Your task to perform on an android device: View the shopping cart on target. Search for "apple airpods" on target, select the first entry, add it to the cart, then select checkout. Image 0: 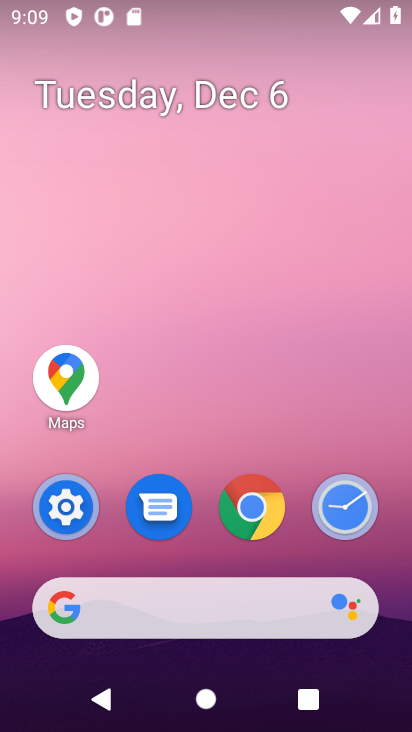
Step 0: click (133, 606)
Your task to perform on an android device: View the shopping cart on target. Search for "apple airpods" on target, select the first entry, add it to the cart, then select checkout. Image 1: 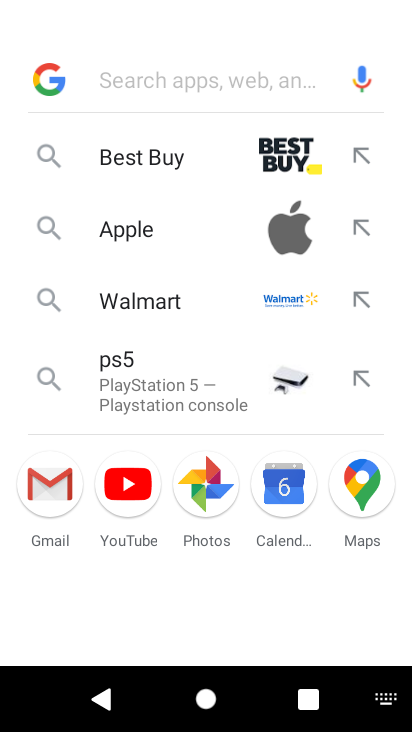
Step 1: type "target"
Your task to perform on an android device: View the shopping cart on target. Search for "apple airpods" on target, select the first entry, add it to the cart, then select checkout. Image 2: 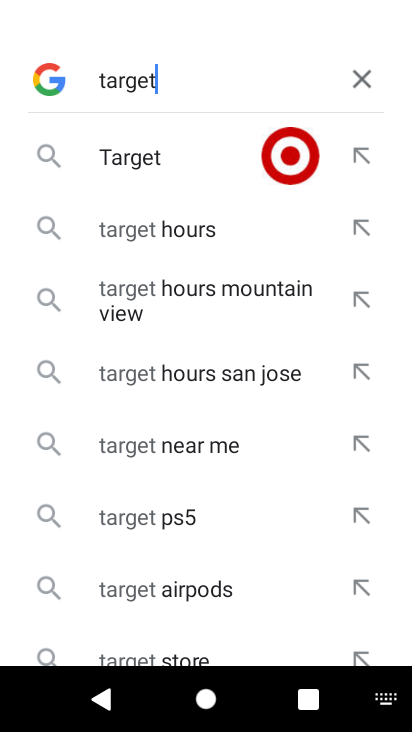
Step 2: press enter
Your task to perform on an android device: View the shopping cart on target. Search for "apple airpods" on target, select the first entry, add it to the cart, then select checkout. Image 3: 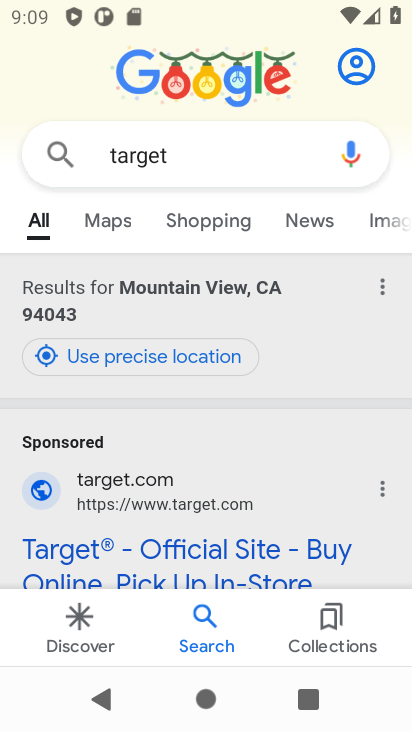
Step 3: drag from (352, 522) to (339, 288)
Your task to perform on an android device: View the shopping cart on target. Search for "apple airpods" on target, select the first entry, add it to the cart, then select checkout. Image 4: 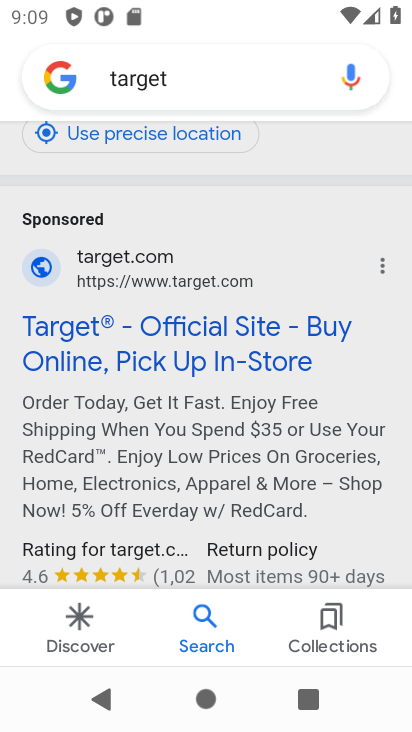
Step 4: click (182, 343)
Your task to perform on an android device: View the shopping cart on target. Search for "apple airpods" on target, select the first entry, add it to the cart, then select checkout. Image 5: 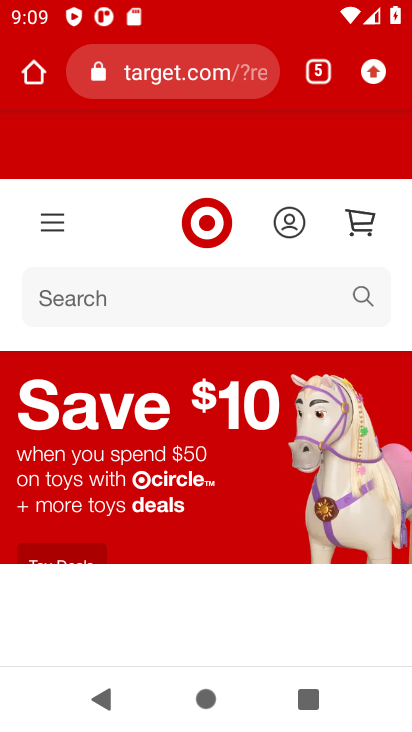
Step 5: click (361, 221)
Your task to perform on an android device: View the shopping cart on target. Search for "apple airpods" on target, select the first entry, add it to the cart, then select checkout. Image 6: 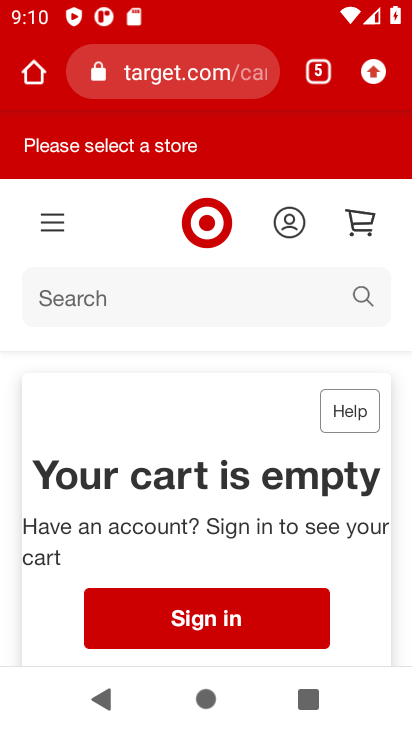
Step 6: click (184, 292)
Your task to perform on an android device: View the shopping cart on target. Search for "apple airpods" on target, select the first entry, add it to the cart, then select checkout. Image 7: 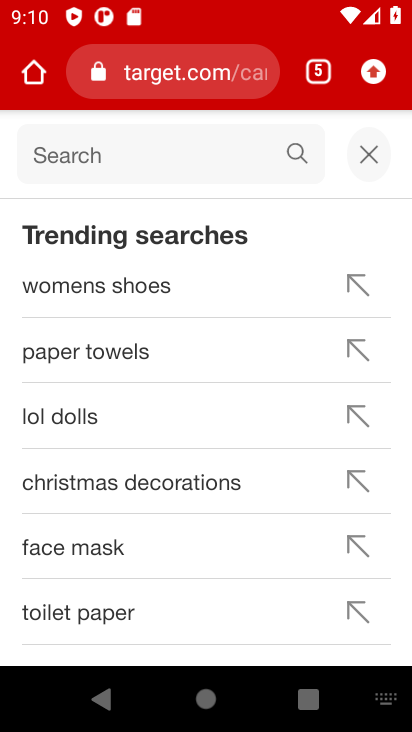
Step 7: type "apple airpods"
Your task to perform on an android device: View the shopping cart on target. Search for "apple airpods" on target, select the first entry, add it to the cart, then select checkout. Image 8: 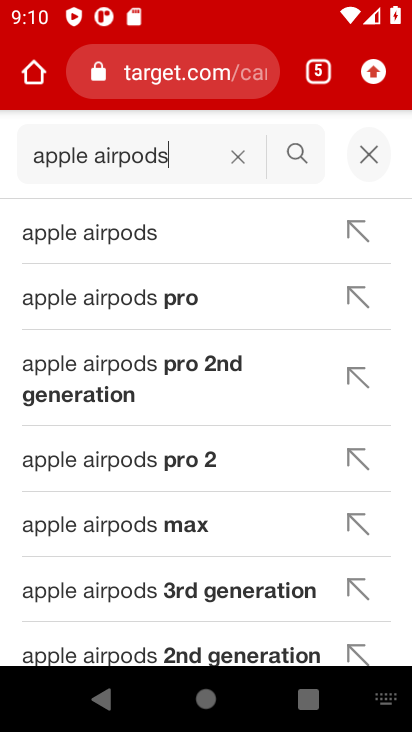
Step 8: press enter
Your task to perform on an android device: View the shopping cart on target. Search for "apple airpods" on target, select the first entry, add it to the cart, then select checkout. Image 9: 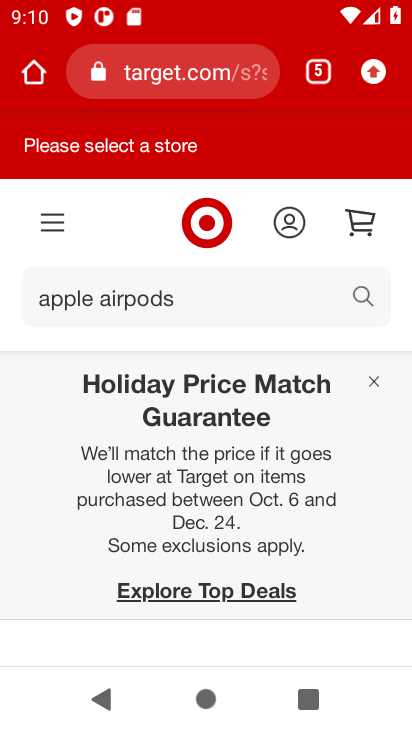
Step 9: drag from (336, 542) to (333, 353)
Your task to perform on an android device: View the shopping cart on target. Search for "apple airpods" on target, select the first entry, add it to the cart, then select checkout. Image 10: 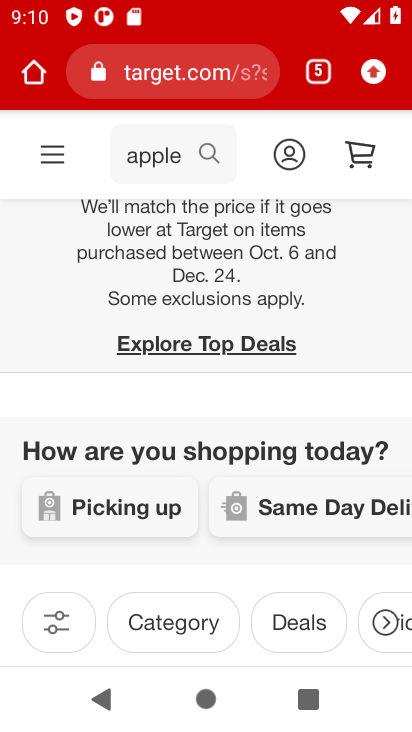
Step 10: drag from (289, 562) to (295, 241)
Your task to perform on an android device: View the shopping cart on target. Search for "apple airpods" on target, select the first entry, add it to the cart, then select checkout. Image 11: 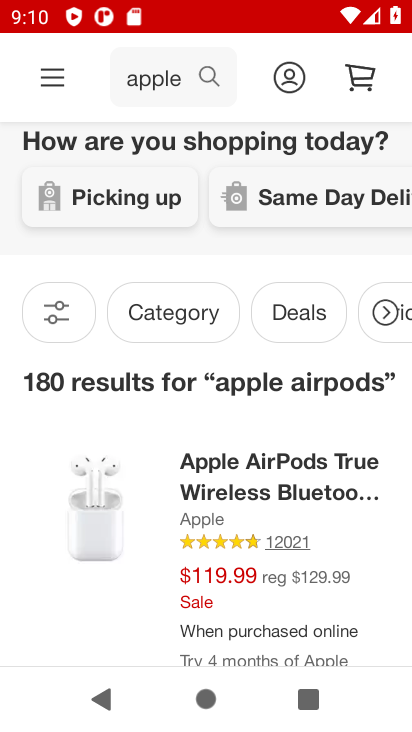
Step 11: drag from (277, 598) to (300, 320)
Your task to perform on an android device: View the shopping cart on target. Search for "apple airpods" on target, select the first entry, add it to the cart, then select checkout. Image 12: 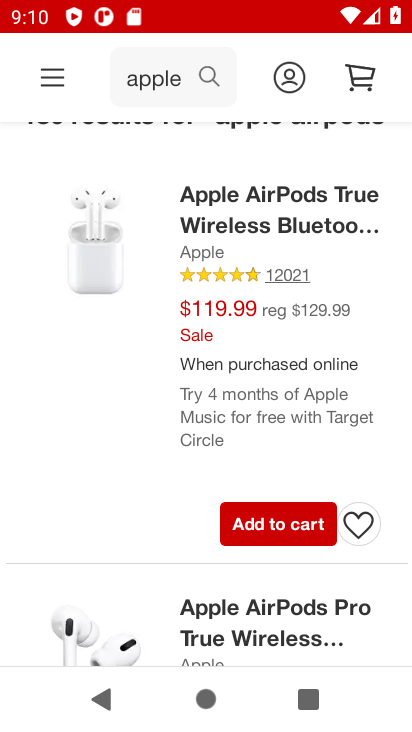
Step 12: drag from (302, 592) to (320, 372)
Your task to perform on an android device: View the shopping cart on target. Search for "apple airpods" on target, select the first entry, add it to the cart, then select checkout. Image 13: 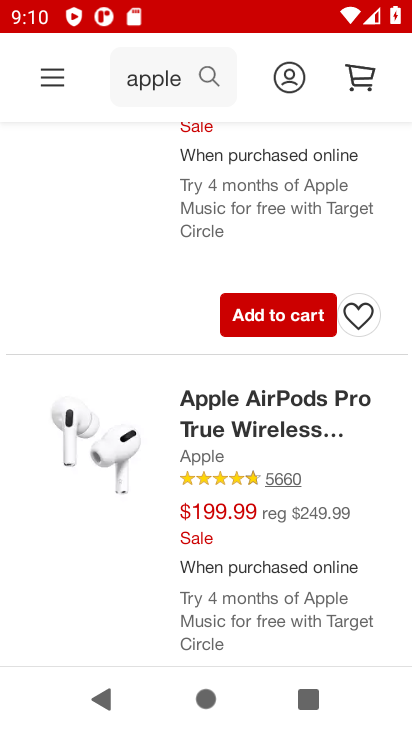
Step 13: click (265, 321)
Your task to perform on an android device: View the shopping cart on target. Search for "apple airpods" on target, select the first entry, add it to the cart, then select checkout. Image 14: 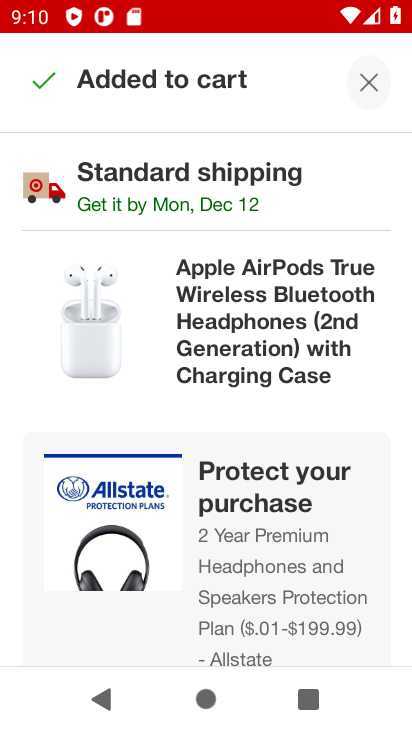
Step 14: task complete